Your task to perform on an android device: install app "Google Maps" Image 0: 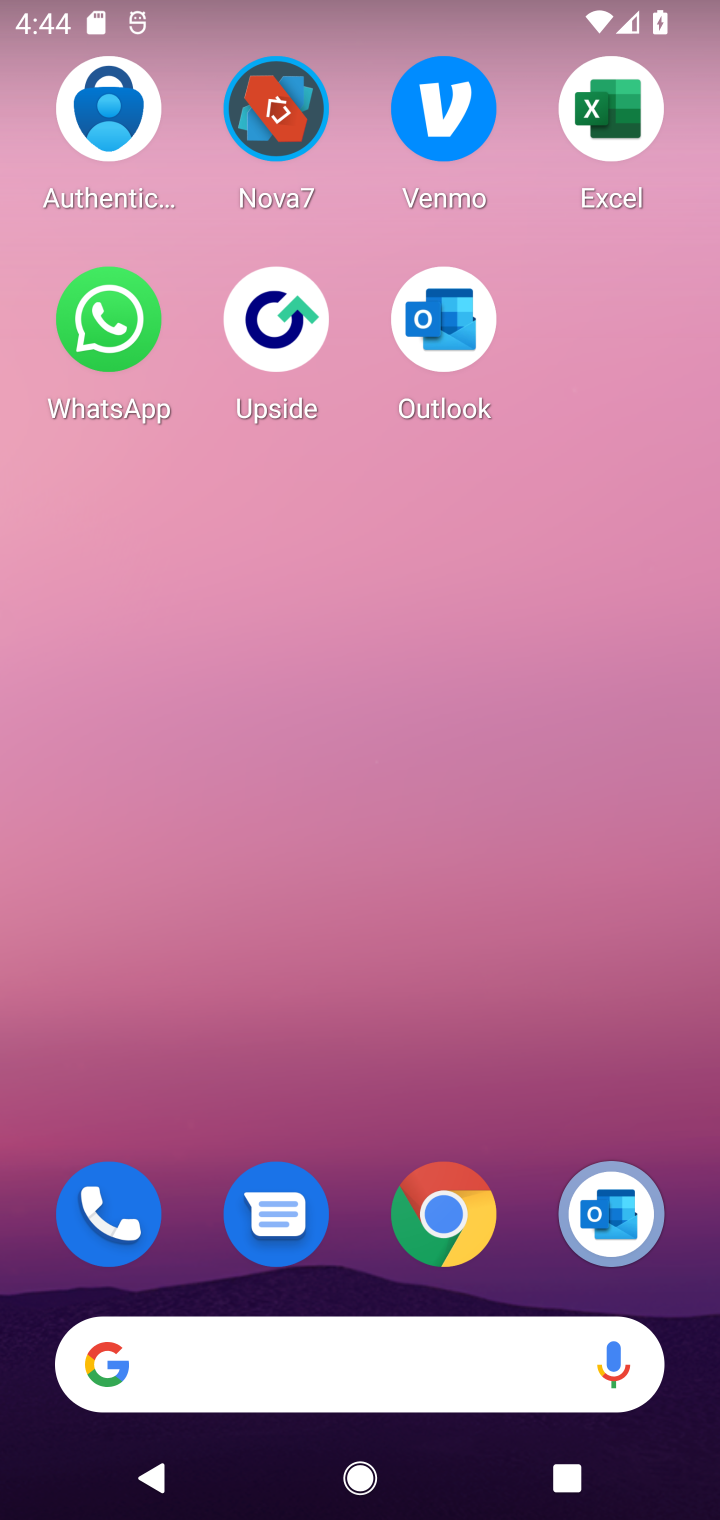
Step 0: drag from (185, 1004) to (707, 1100)
Your task to perform on an android device: install app "Google Maps" Image 1: 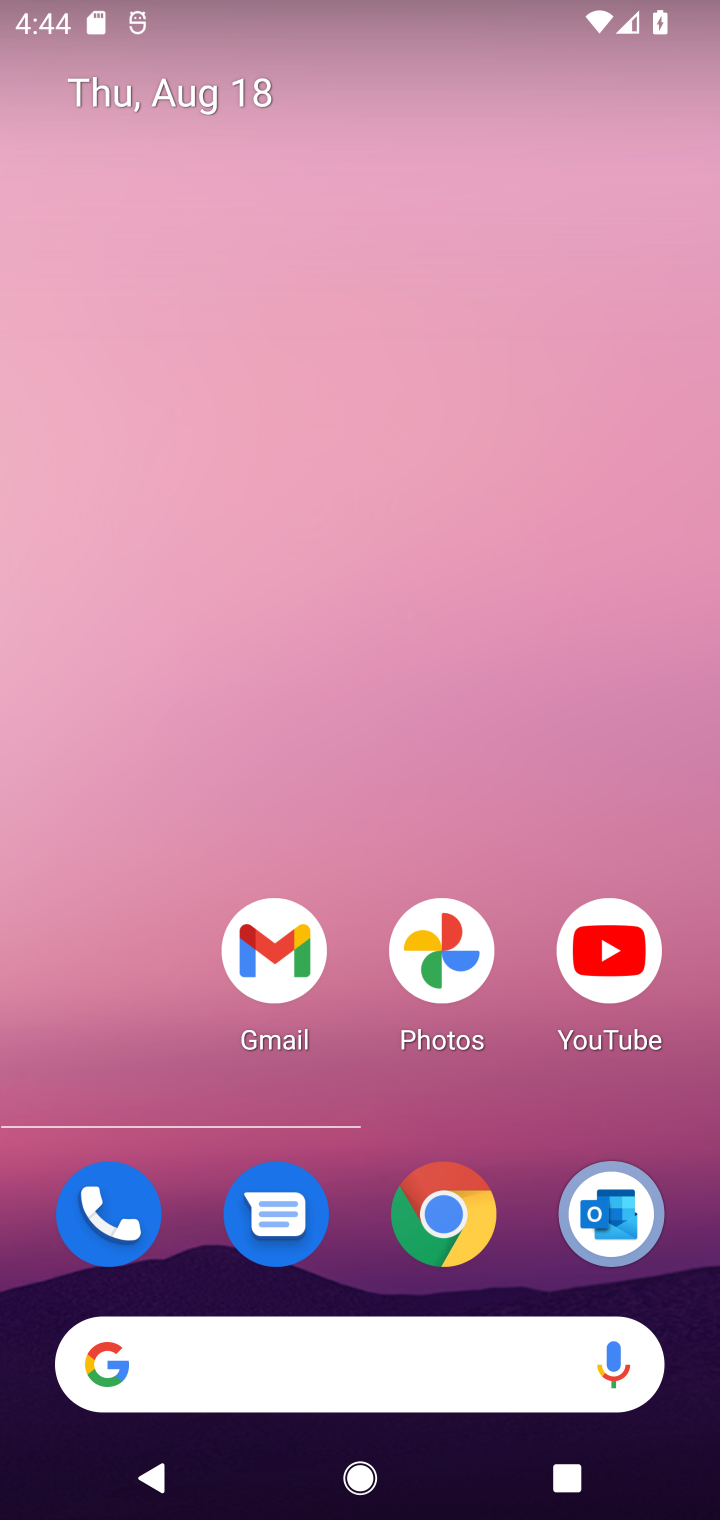
Step 1: drag from (338, 1186) to (514, 39)
Your task to perform on an android device: install app "Google Maps" Image 2: 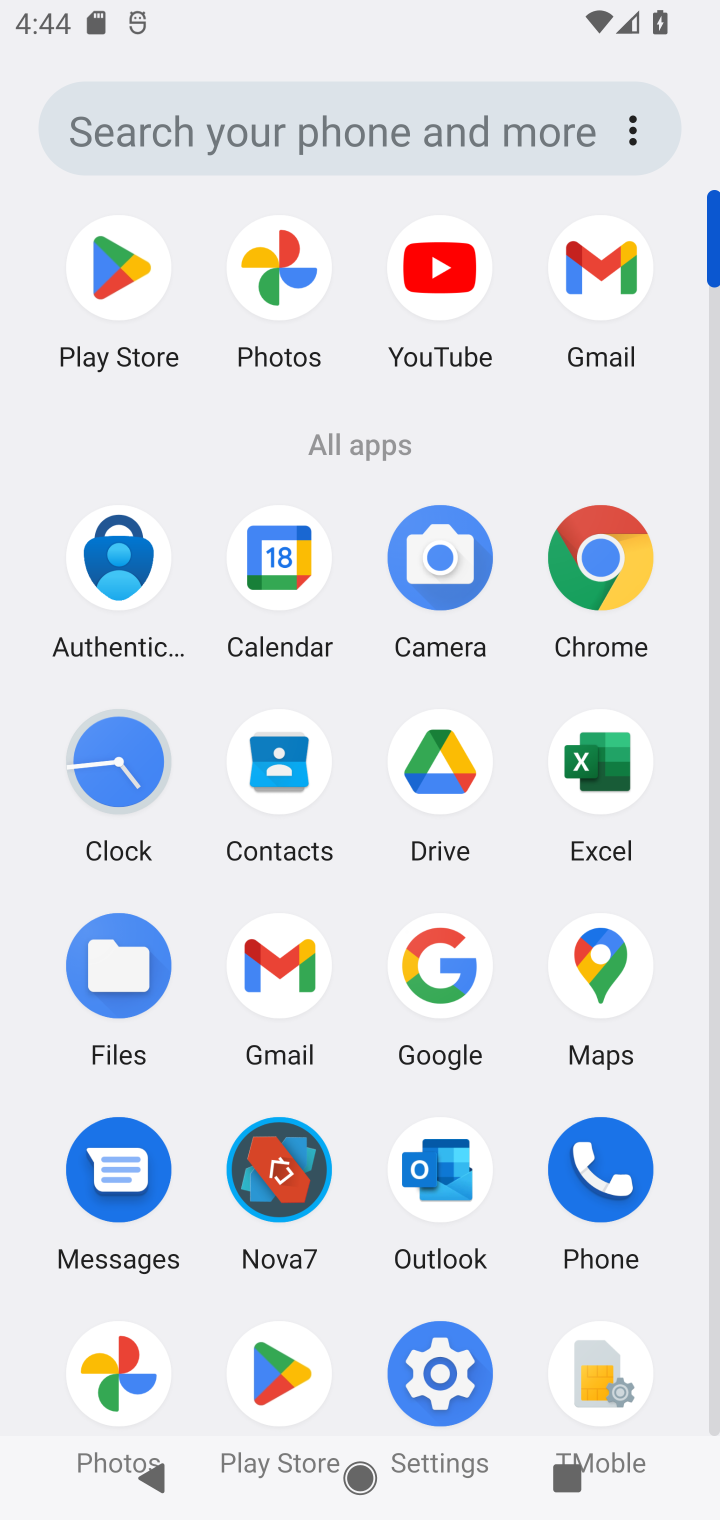
Step 2: click (133, 292)
Your task to perform on an android device: install app "Google Maps" Image 3: 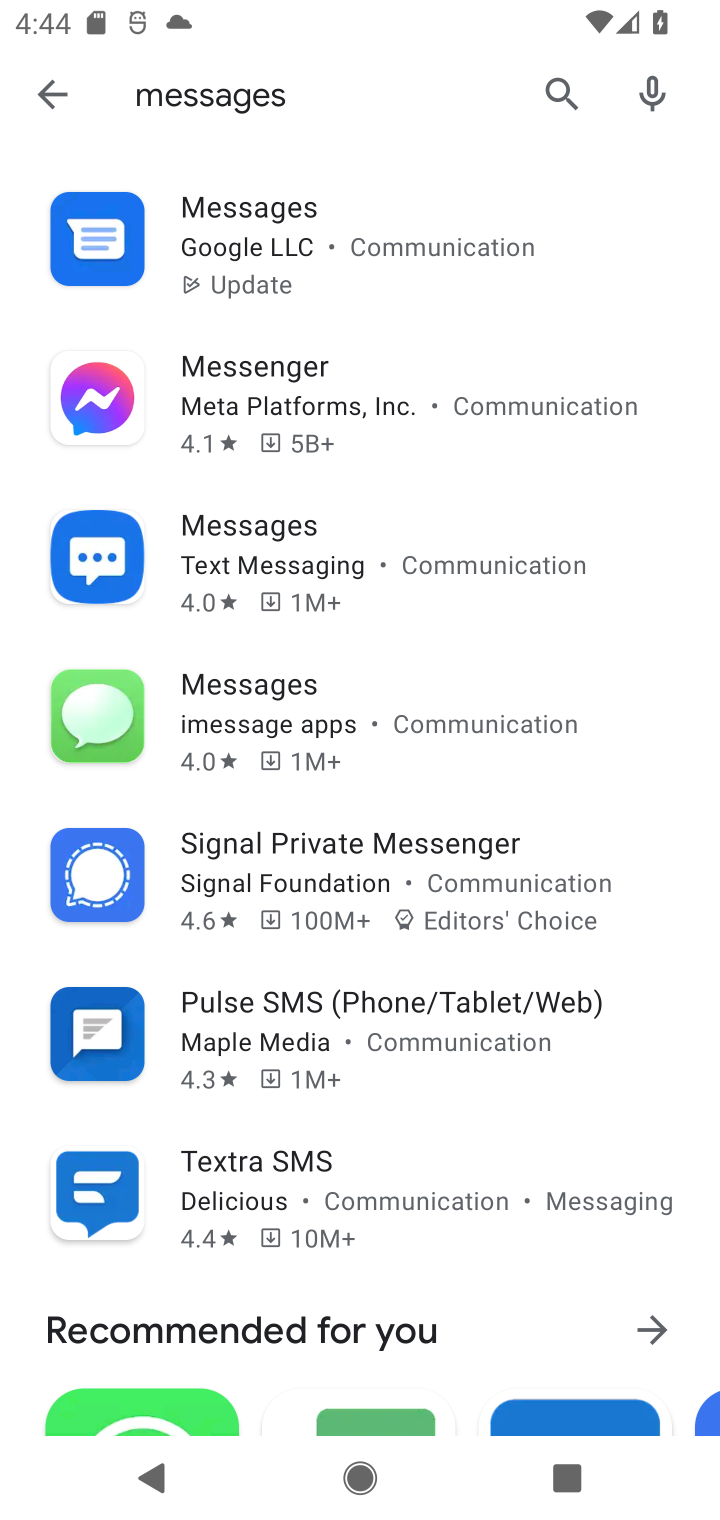
Step 3: click (328, 96)
Your task to perform on an android device: install app "Google Maps" Image 4: 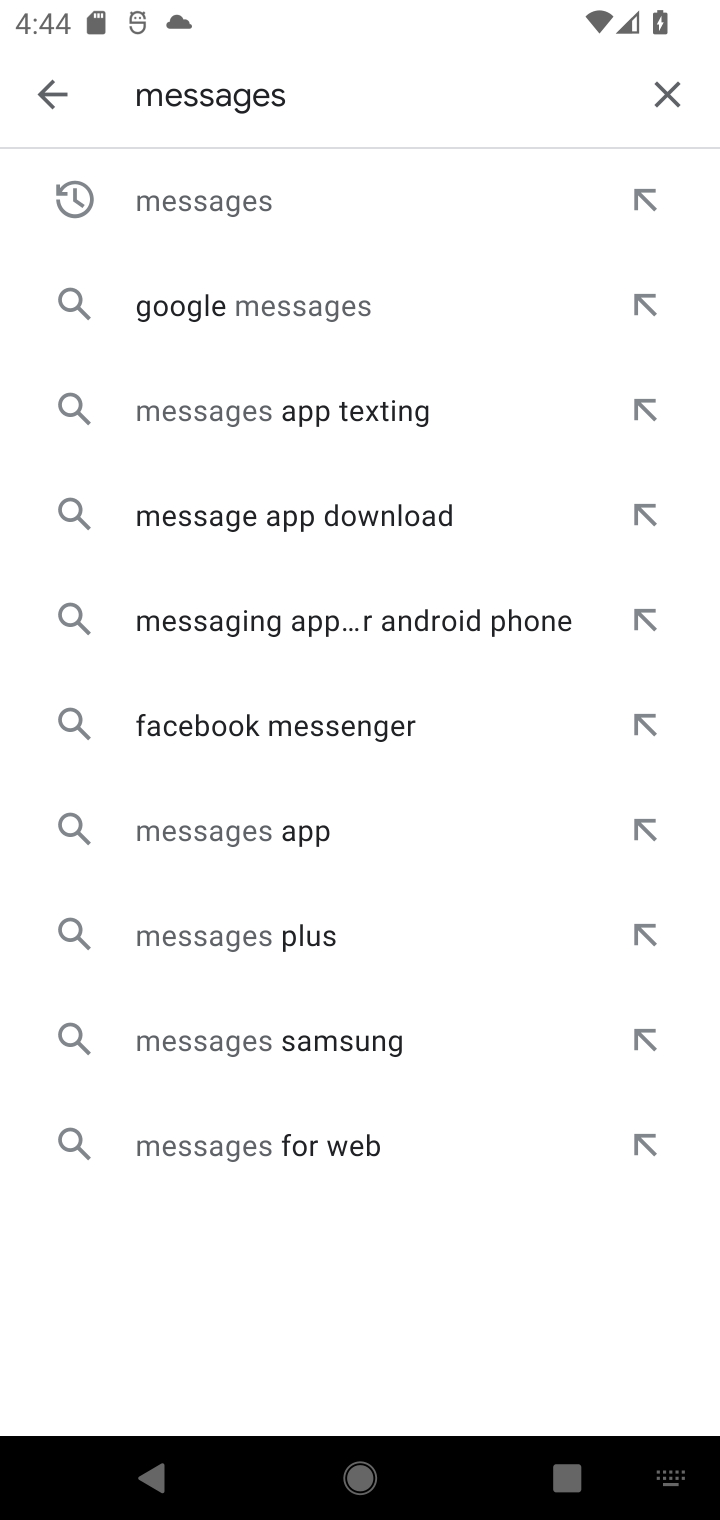
Step 4: click (660, 86)
Your task to perform on an android device: install app "Google Maps" Image 5: 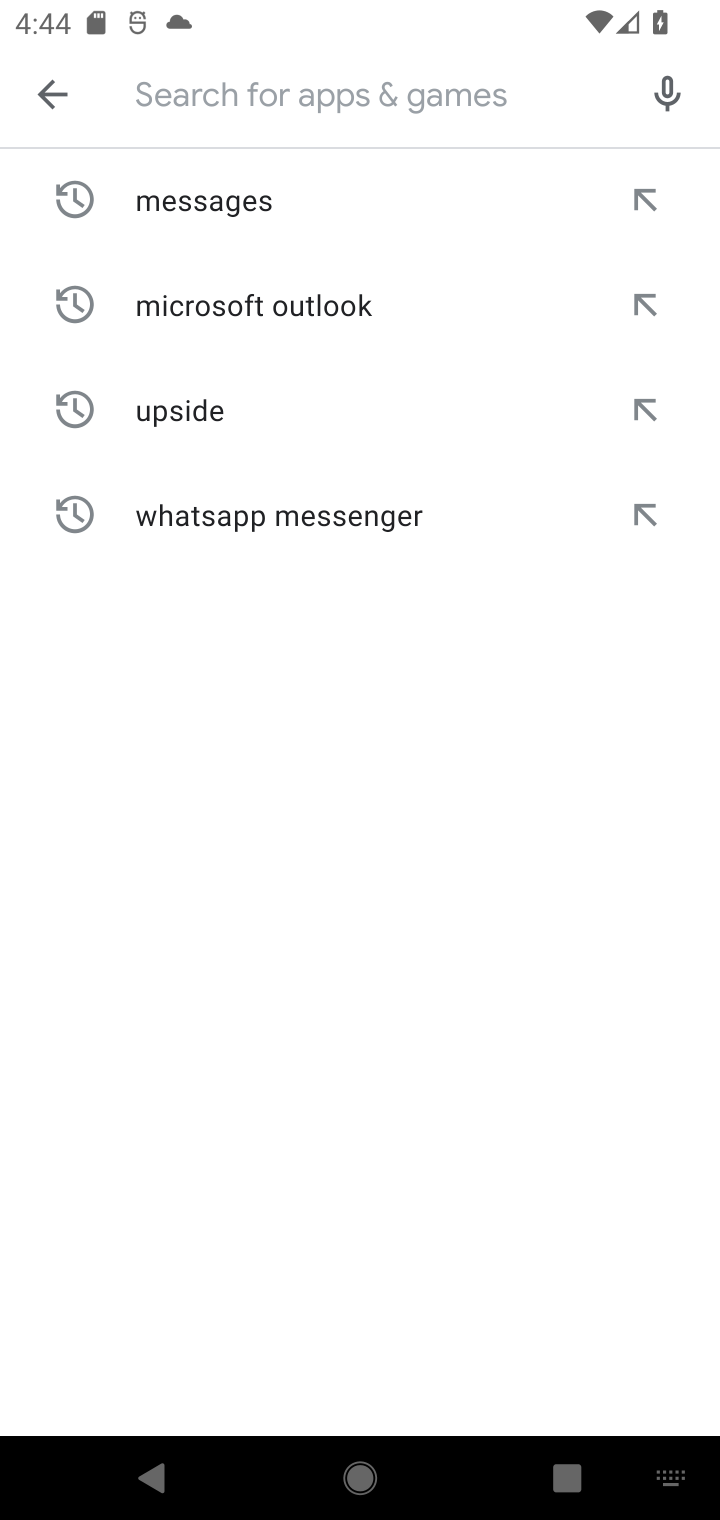
Step 5: type "Google maps"
Your task to perform on an android device: install app "Google Maps" Image 6: 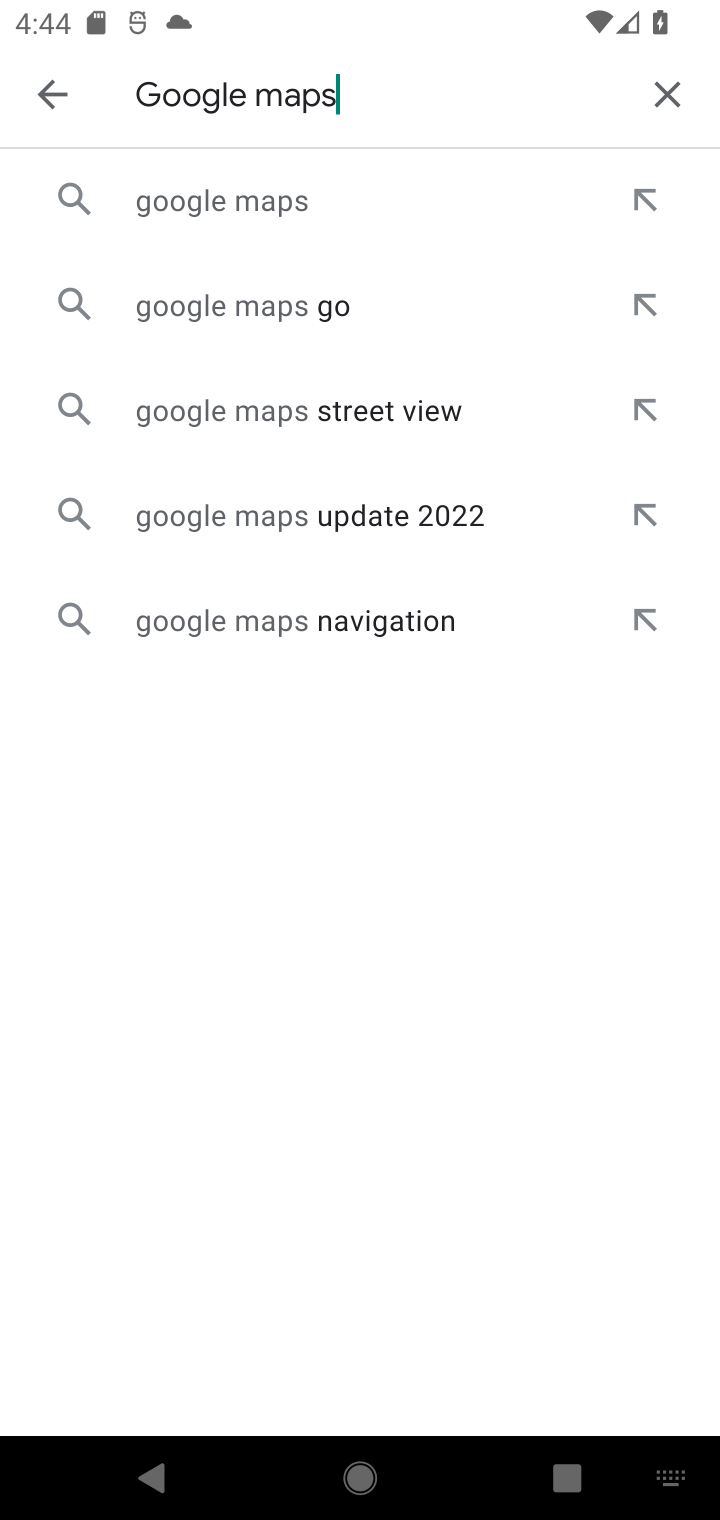
Step 6: click (297, 216)
Your task to perform on an android device: install app "Google Maps" Image 7: 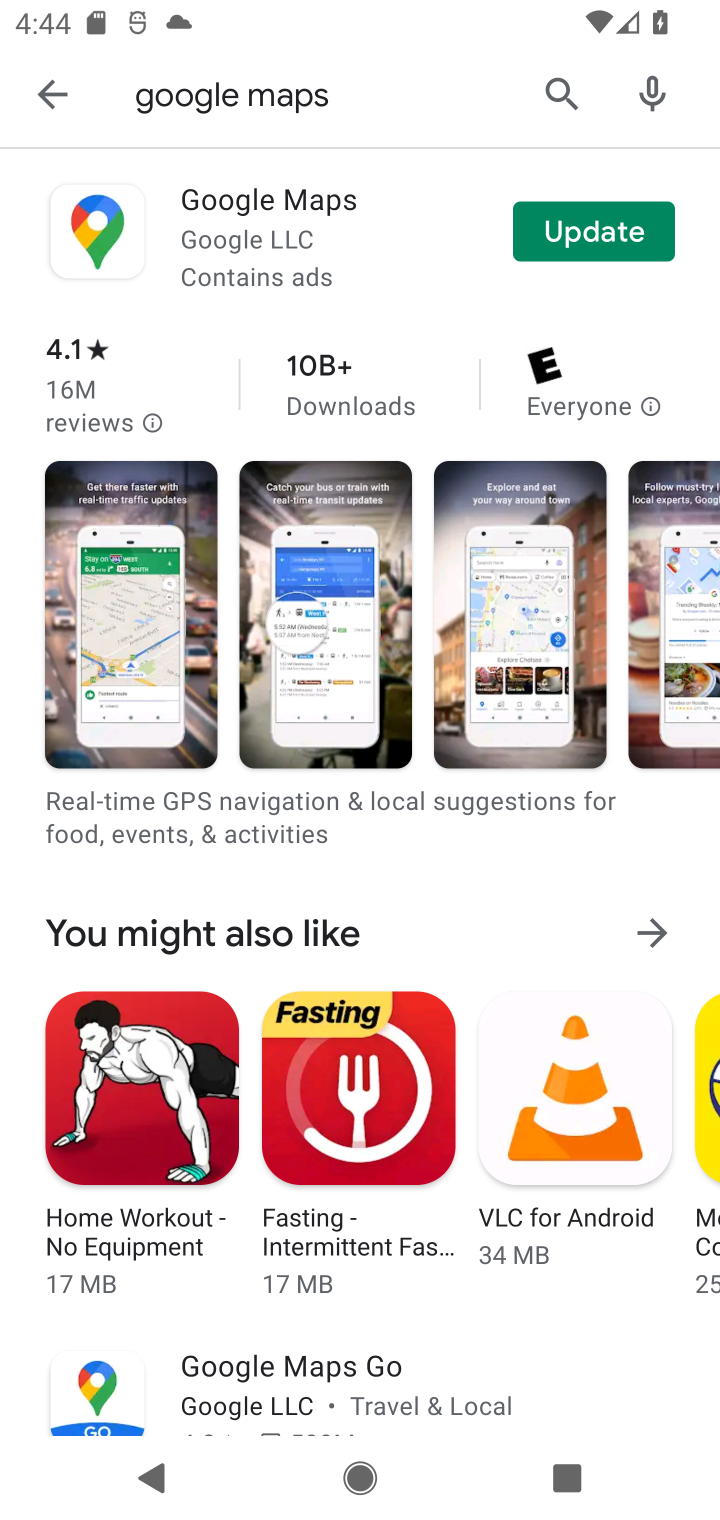
Step 7: click (570, 217)
Your task to perform on an android device: install app "Google Maps" Image 8: 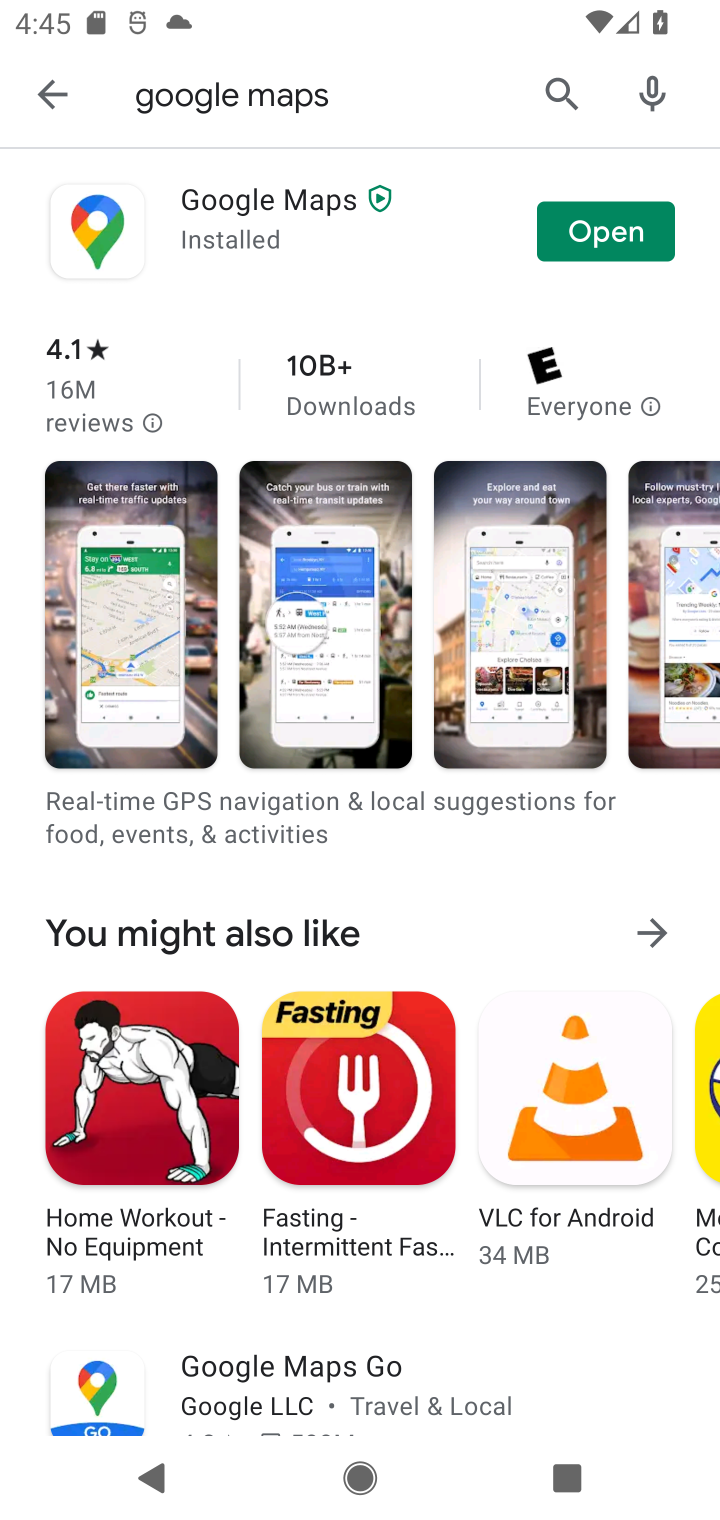
Step 8: click (569, 233)
Your task to perform on an android device: install app "Google Maps" Image 9: 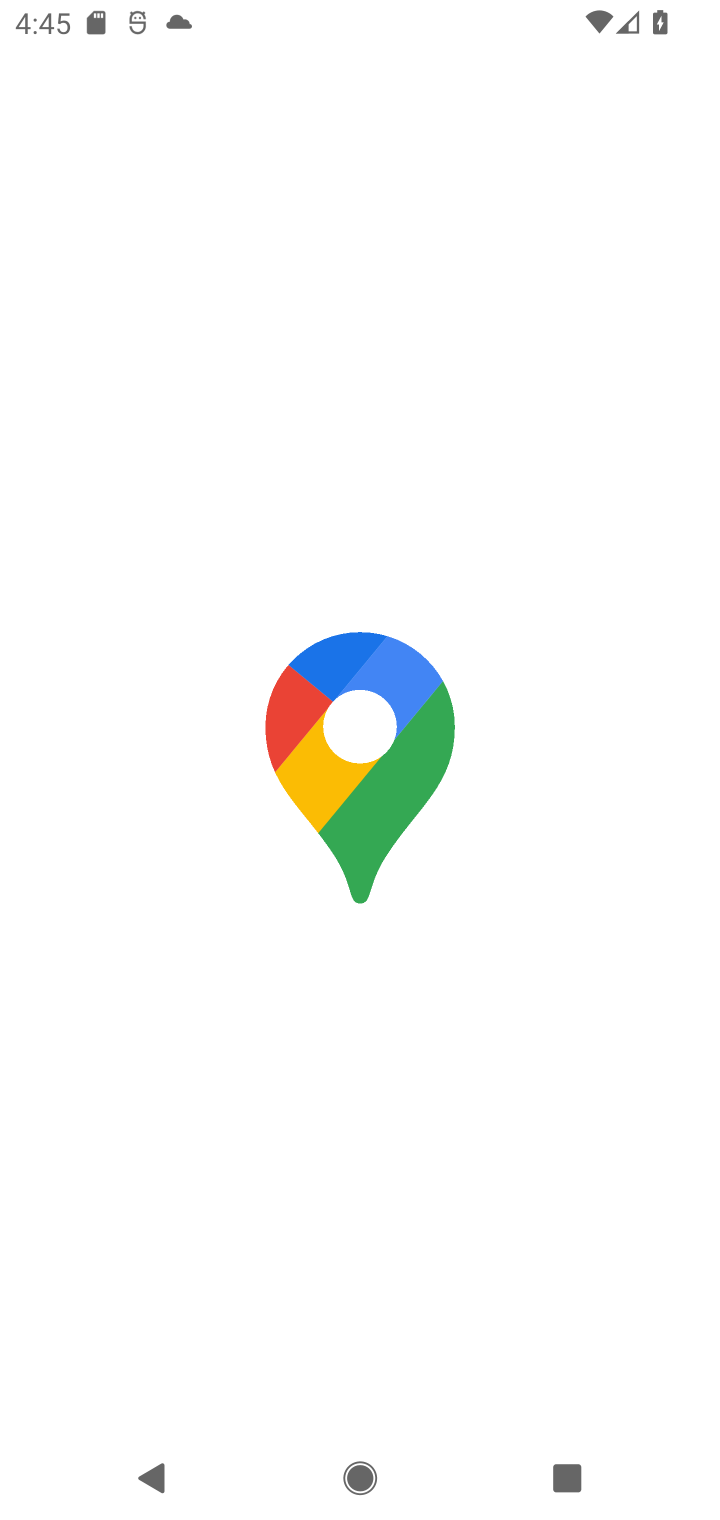
Step 9: task complete